Your task to perform on an android device: turn on showing notifications on the lock screen Image 0: 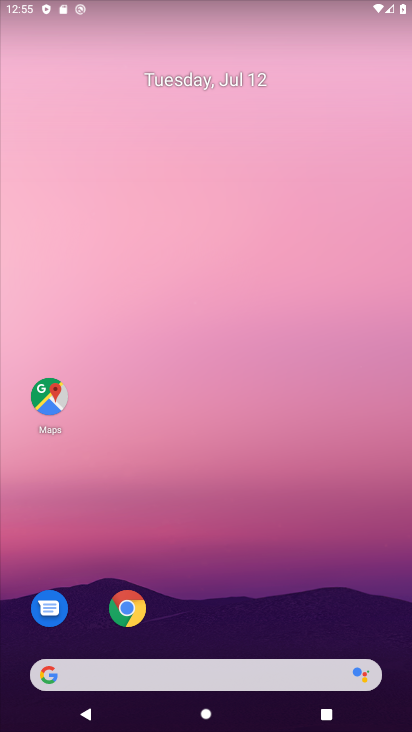
Step 0: drag from (170, 547) to (168, 377)
Your task to perform on an android device: turn on showing notifications on the lock screen Image 1: 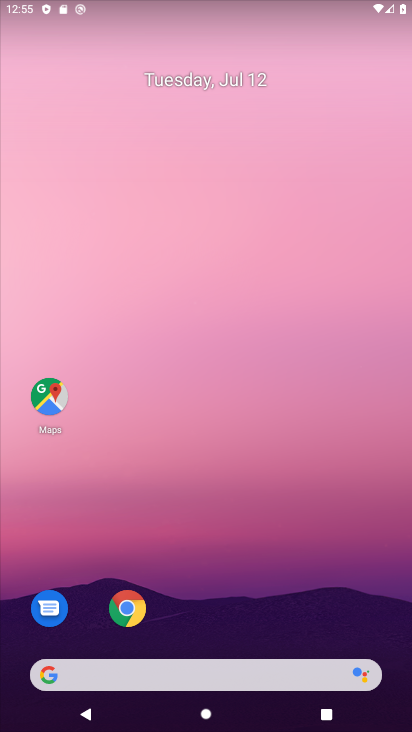
Step 1: drag from (250, 426) to (243, 197)
Your task to perform on an android device: turn on showing notifications on the lock screen Image 2: 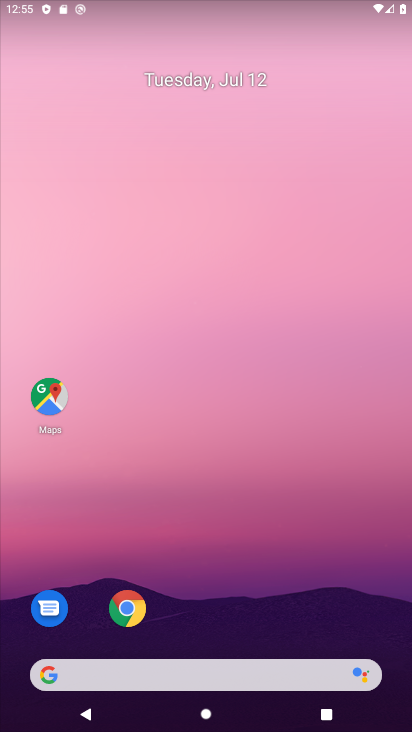
Step 2: drag from (247, 650) to (203, 205)
Your task to perform on an android device: turn on showing notifications on the lock screen Image 3: 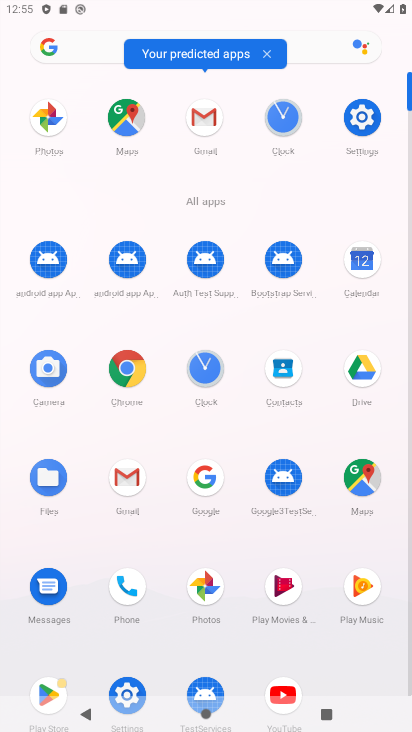
Step 3: click (360, 115)
Your task to perform on an android device: turn on showing notifications on the lock screen Image 4: 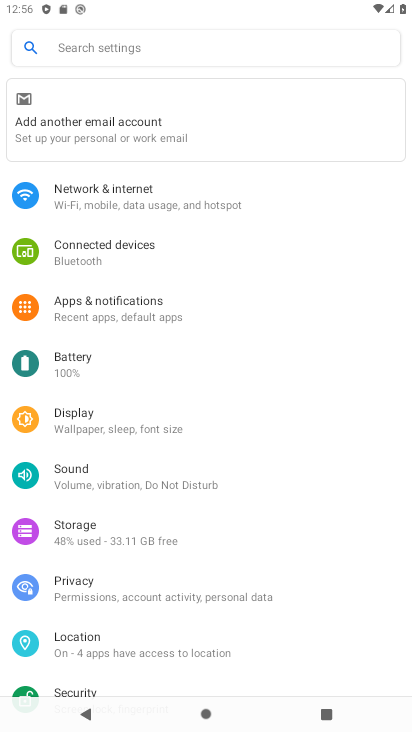
Step 4: click (104, 581)
Your task to perform on an android device: turn on showing notifications on the lock screen Image 5: 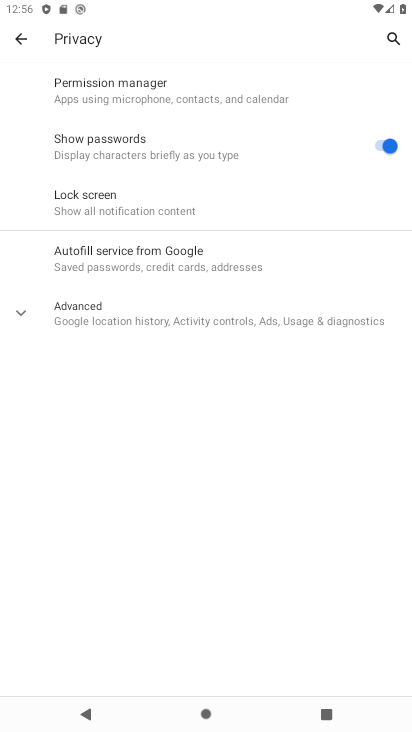
Step 5: click (95, 311)
Your task to perform on an android device: turn on showing notifications on the lock screen Image 6: 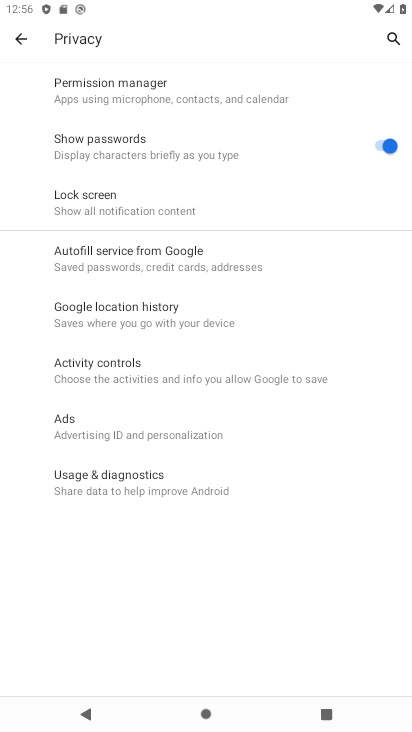
Step 6: click (87, 208)
Your task to perform on an android device: turn on showing notifications on the lock screen Image 7: 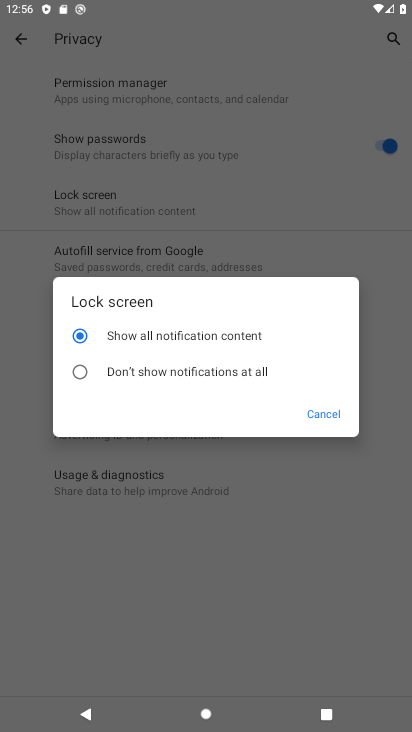
Step 7: task complete